Your task to perform on an android device: visit the assistant section in the google photos Image 0: 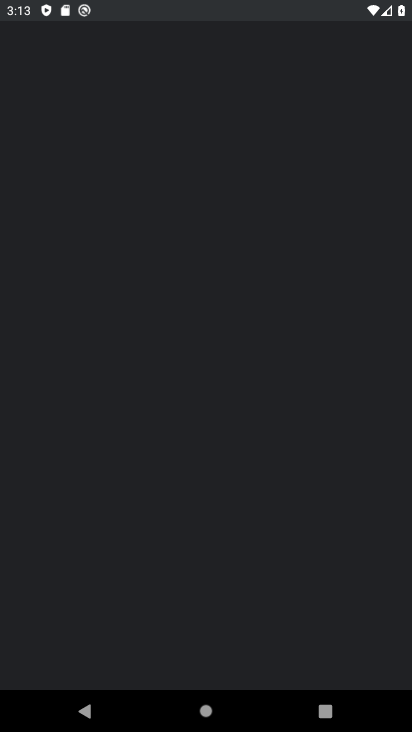
Step 0: drag from (240, 692) to (195, 268)
Your task to perform on an android device: visit the assistant section in the google photos Image 1: 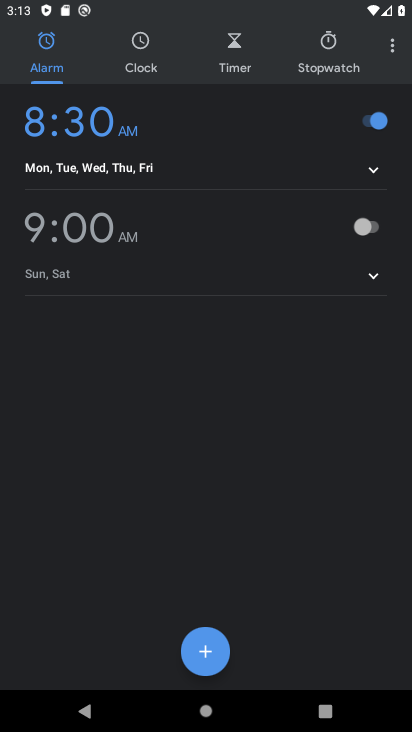
Step 1: press home button
Your task to perform on an android device: visit the assistant section in the google photos Image 2: 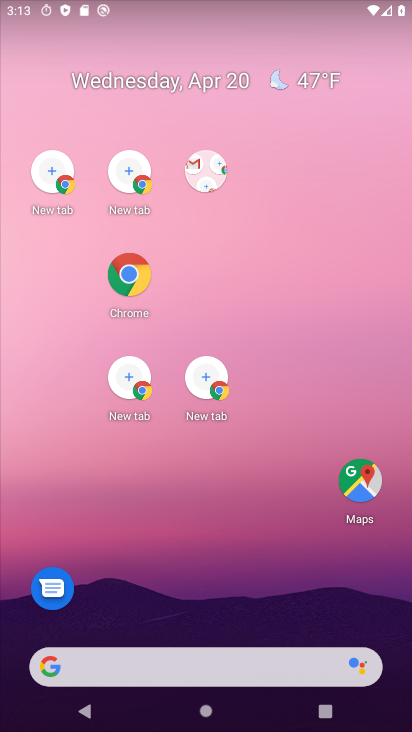
Step 2: drag from (222, 704) to (210, 258)
Your task to perform on an android device: visit the assistant section in the google photos Image 3: 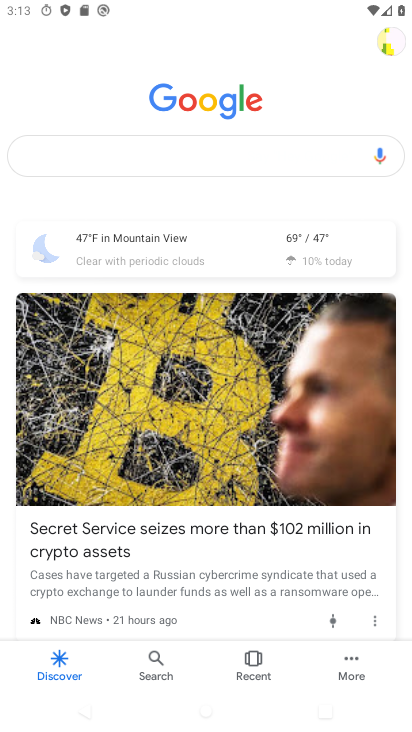
Step 3: drag from (304, 619) to (225, 189)
Your task to perform on an android device: visit the assistant section in the google photos Image 4: 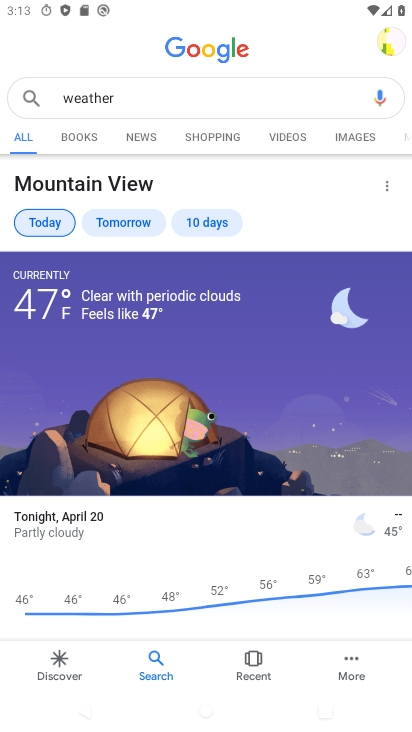
Step 4: press home button
Your task to perform on an android device: visit the assistant section in the google photos Image 5: 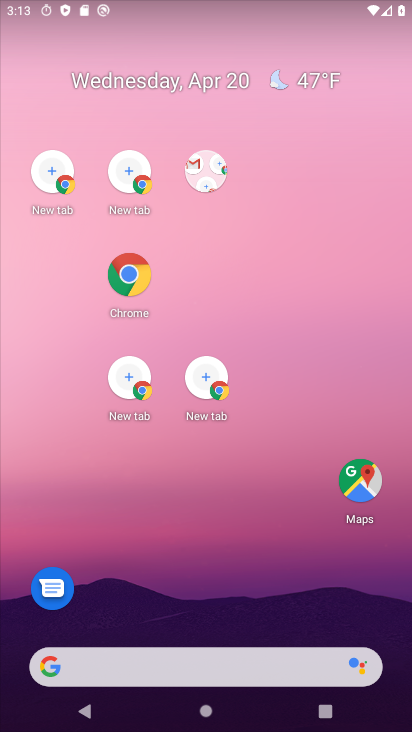
Step 5: drag from (286, 620) to (202, 214)
Your task to perform on an android device: visit the assistant section in the google photos Image 6: 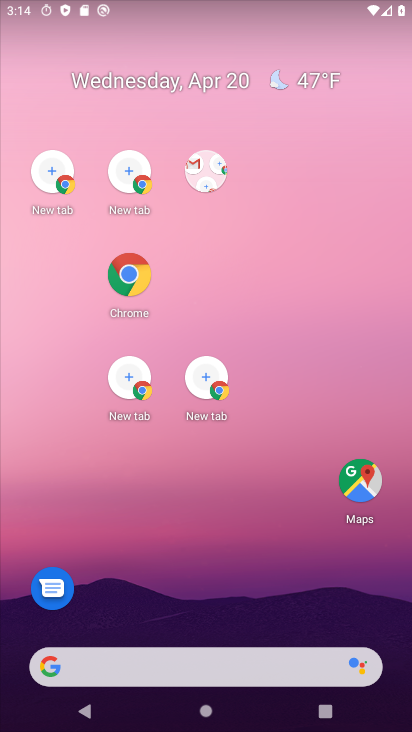
Step 6: drag from (281, 504) to (264, 255)
Your task to perform on an android device: visit the assistant section in the google photos Image 7: 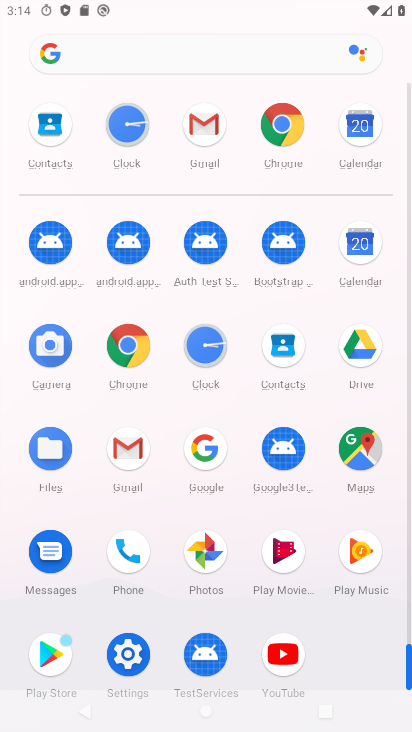
Step 7: click (203, 538)
Your task to perform on an android device: visit the assistant section in the google photos Image 8: 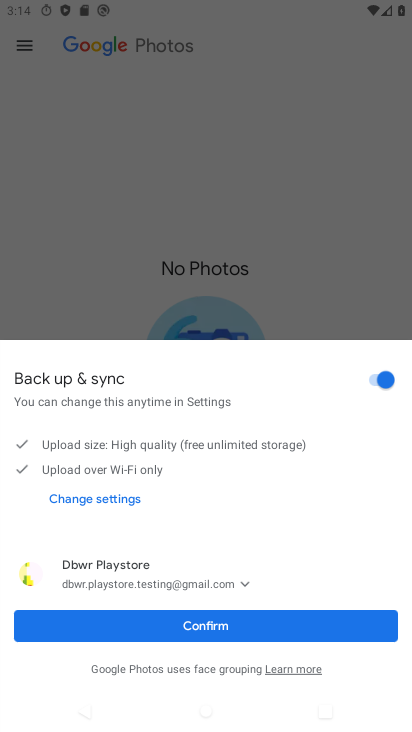
Step 8: click (216, 611)
Your task to perform on an android device: visit the assistant section in the google photos Image 9: 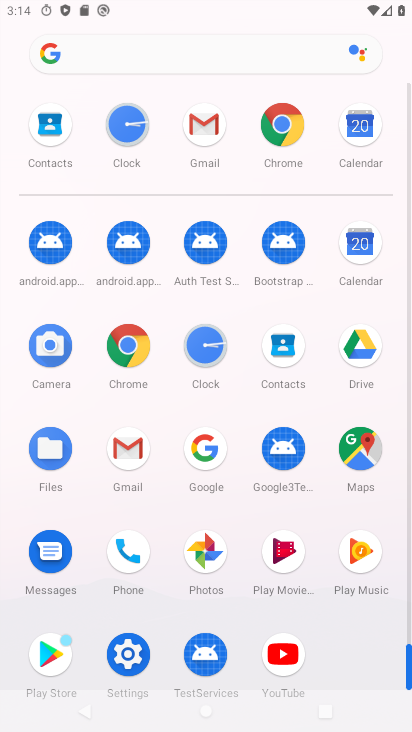
Step 9: click (204, 534)
Your task to perform on an android device: visit the assistant section in the google photos Image 10: 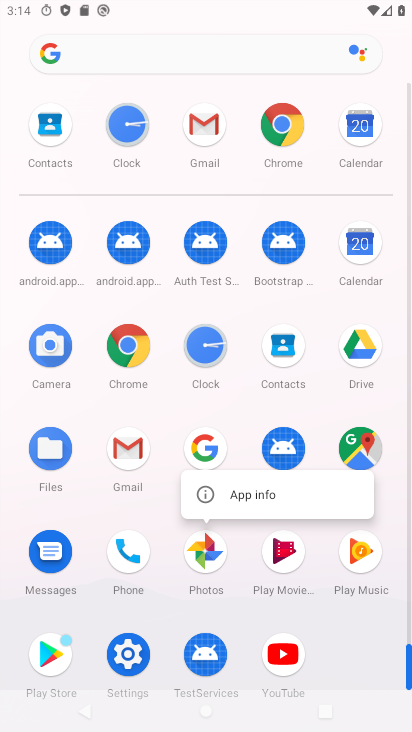
Step 10: click (202, 563)
Your task to perform on an android device: visit the assistant section in the google photos Image 11: 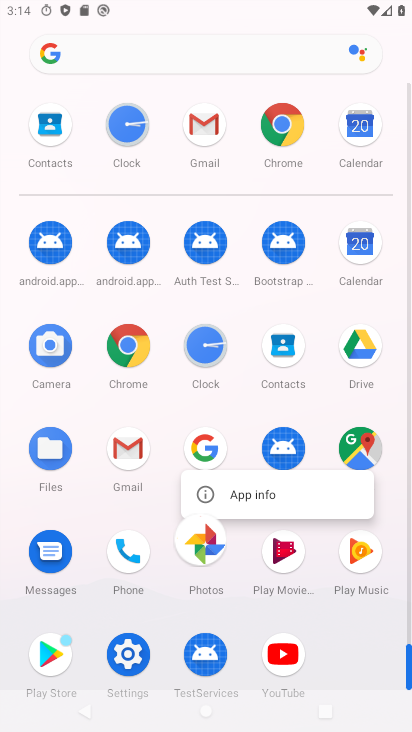
Step 11: click (184, 534)
Your task to perform on an android device: visit the assistant section in the google photos Image 12: 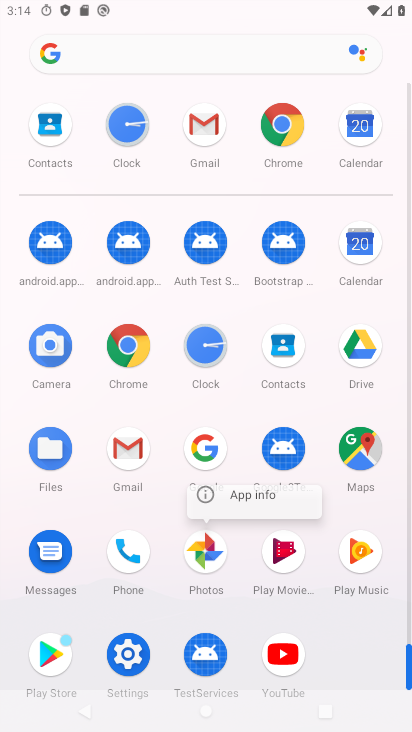
Step 12: click (199, 537)
Your task to perform on an android device: visit the assistant section in the google photos Image 13: 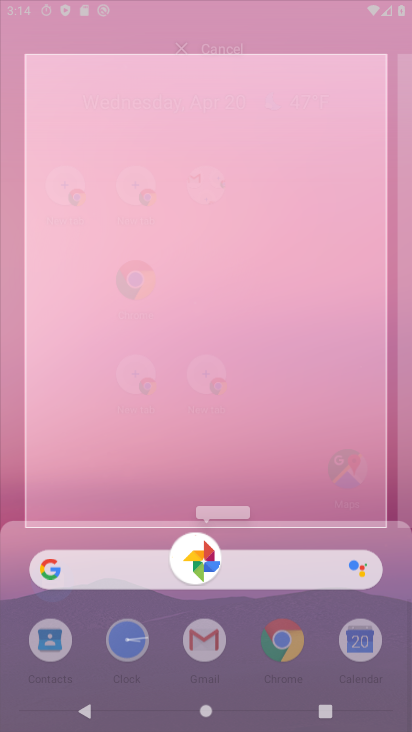
Step 13: click (205, 555)
Your task to perform on an android device: visit the assistant section in the google photos Image 14: 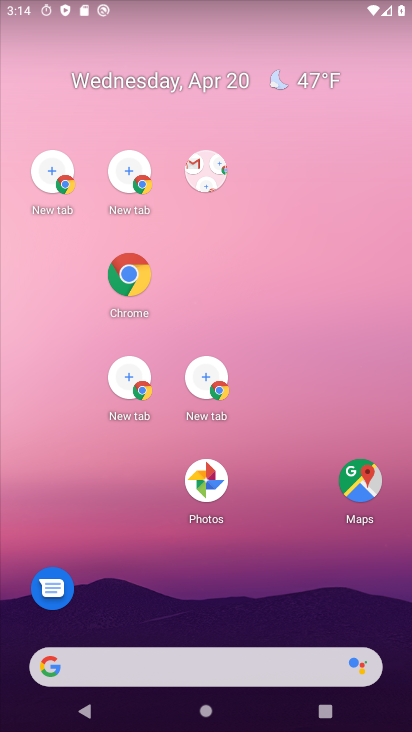
Step 14: click (214, 473)
Your task to perform on an android device: visit the assistant section in the google photos Image 15: 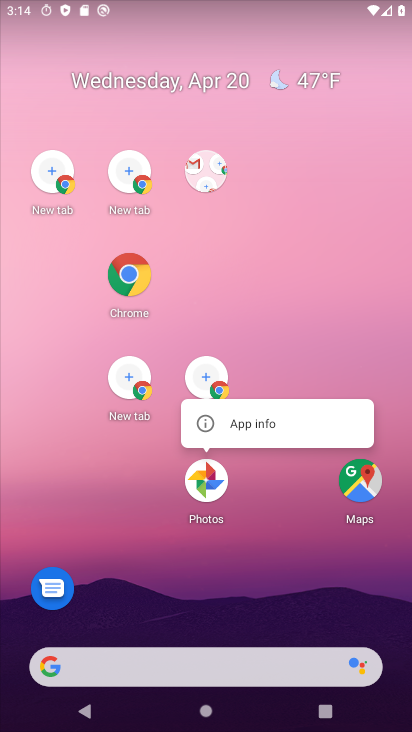
Step 15: click (226, 549)
Your task to perform on an android device: visit the assistant section in the google photos Image 16: 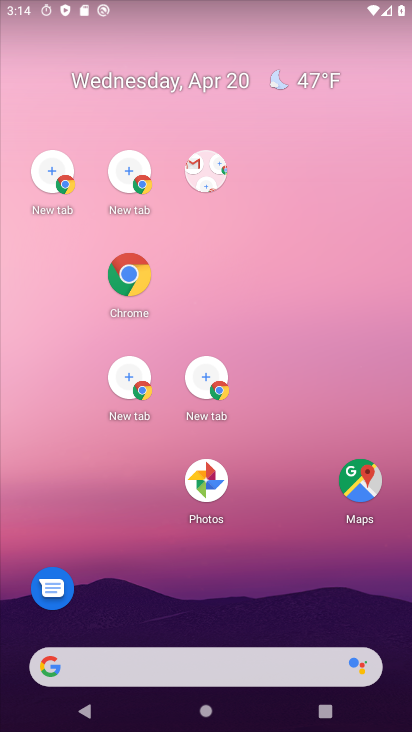
Step 16: click (198, 475)
Your task to perform on an android device: visit the assistant section in the google photos Image 17: 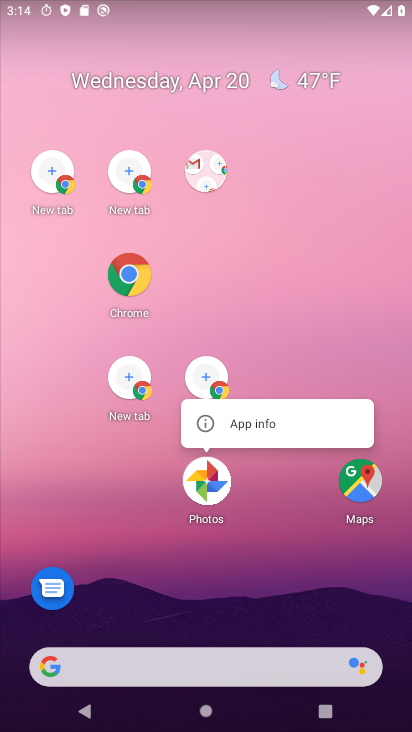
Step 17: click (195, 469)
Your task to perform on an android device: visit the assistant section in the google photos Image 18: 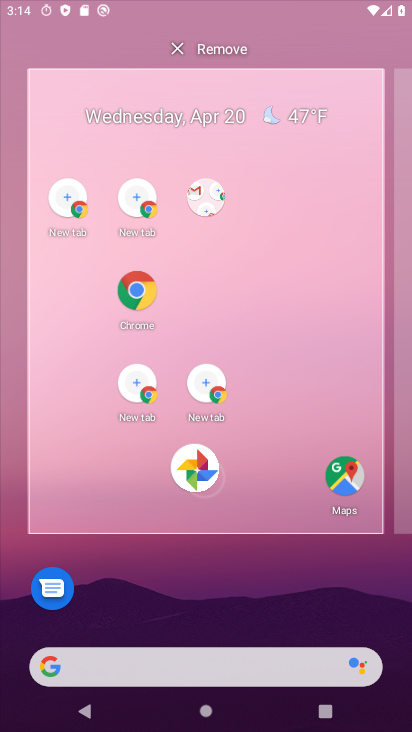
Step 18: click (182, 461)
Your task to perform on an android device: visit the assistant section in the google photos Image 19: 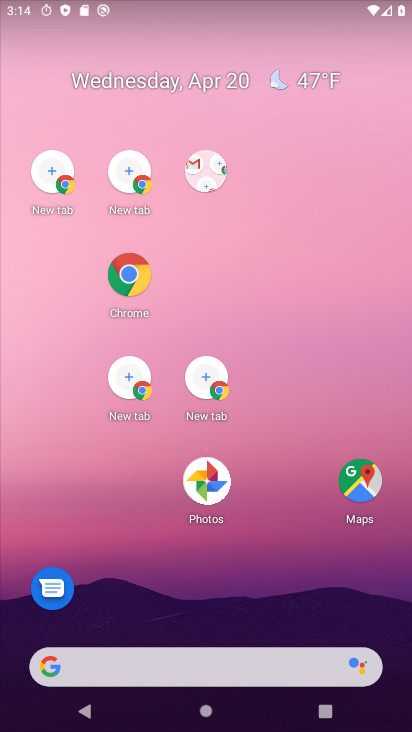
Step 19: click (181, 462)
Your task to perform on an android device: visit the assistant section in the google photos Image 20: 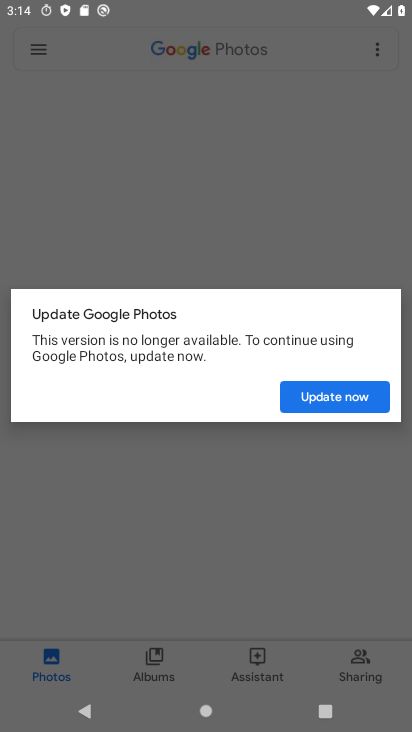
Step 20: click (343, 402)
Your task to perform on an android device: visit the assistant section in the google photos Image 21: 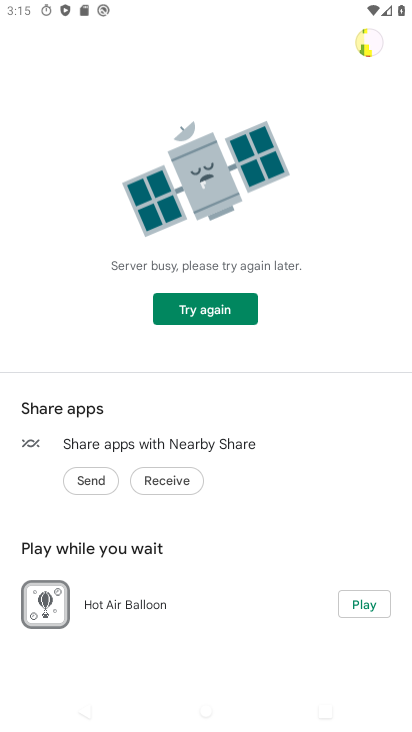
Step 21: task complete